Your task to perform on an android device: When is my next appointment? Image 0: 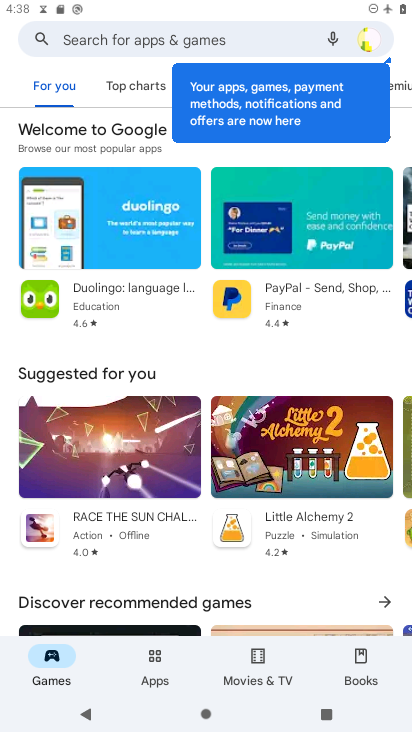
Step 0: press home button
Your task to perform on an android device: When is my next appointment? Image 1: 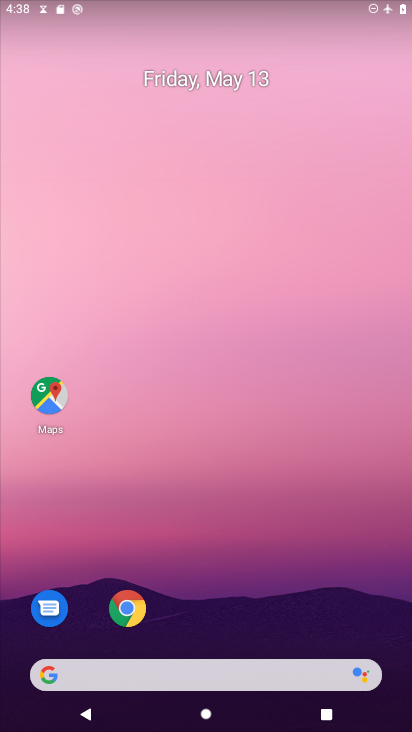
Step 1: drag from (245, 679) to (341, 0)
Your task to perform on an android device: When is my next appointment? Image 2: 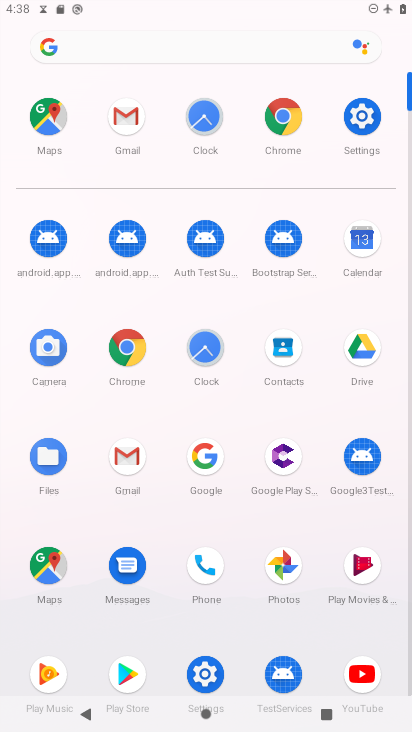
Step 2: click (368, 244)
Your task to perform on an android device: When is my next appointment? Image 3: 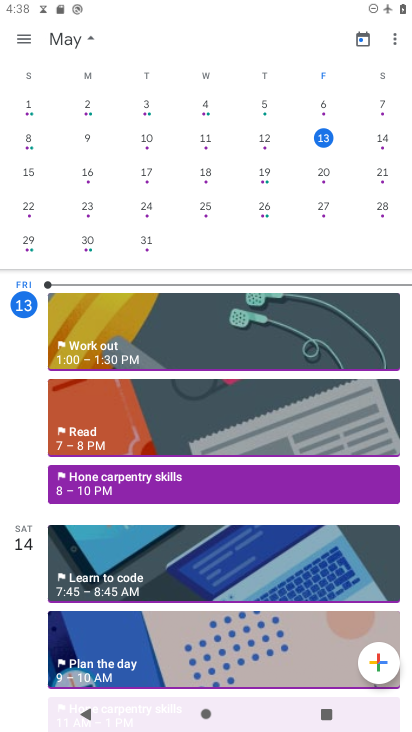
Step 3: click (375, 134)
Your task to perform on an android device: When is my next appointment? Image 4: 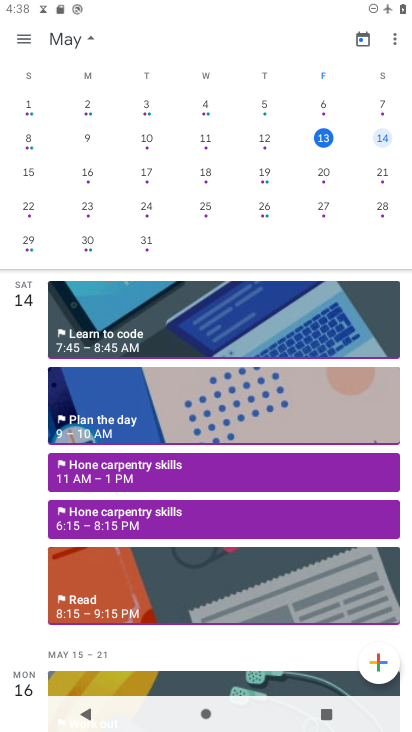
Step 4: click (322, 134)
Your task to perform on an android device: When is my next appointment? Image 5: 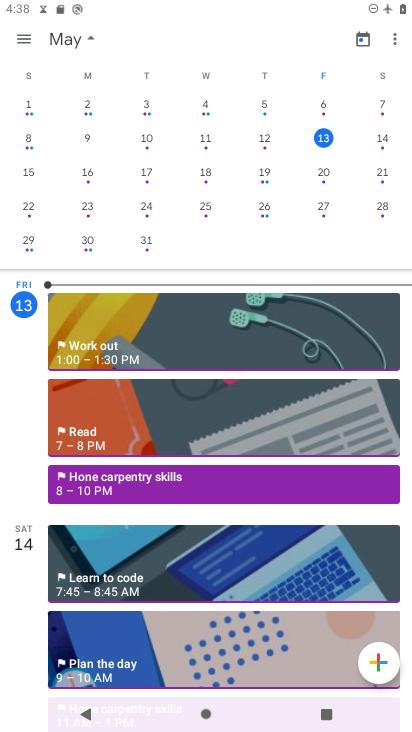
Step 5: task complete